Your task to perform on an android device: add a label to a message in the gmail app Image 0: 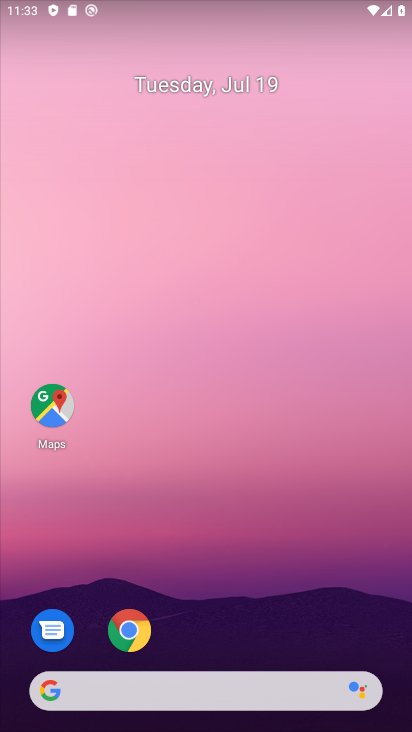
Step 0: drag from (192, 723) to (238, 108)
Your task to perform on an android device: add a label to a message in the gmail app Image 1: 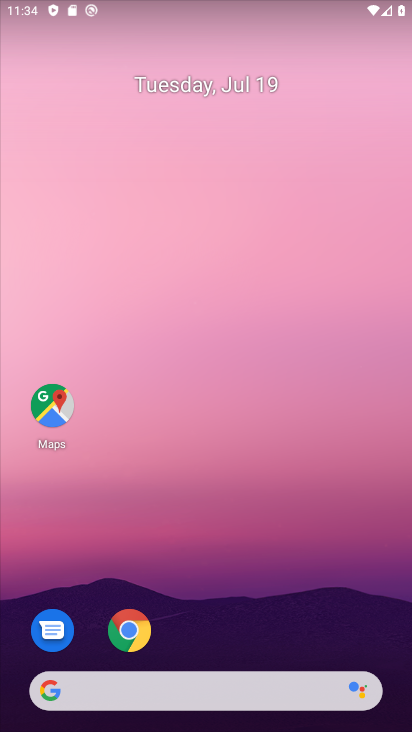
Step 1: drag from (220, 658) to (218, 42)
Your task to perform on an android device: add a label to a message in the gmail app Image 2: 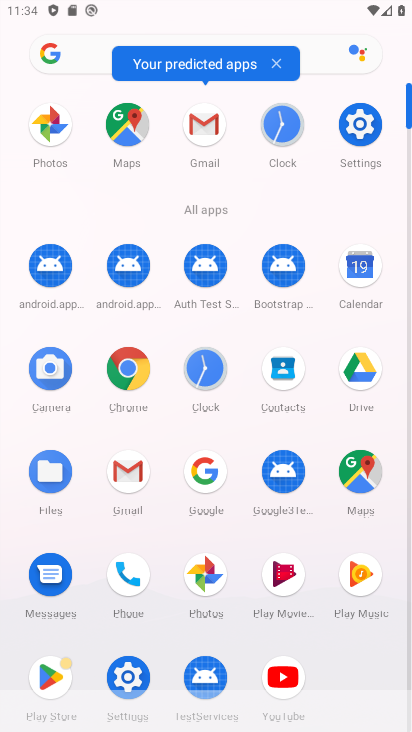
Step 2: click (126, 497)
Your task to perform on an android device: add a label to a message in the gmail app Image 3: 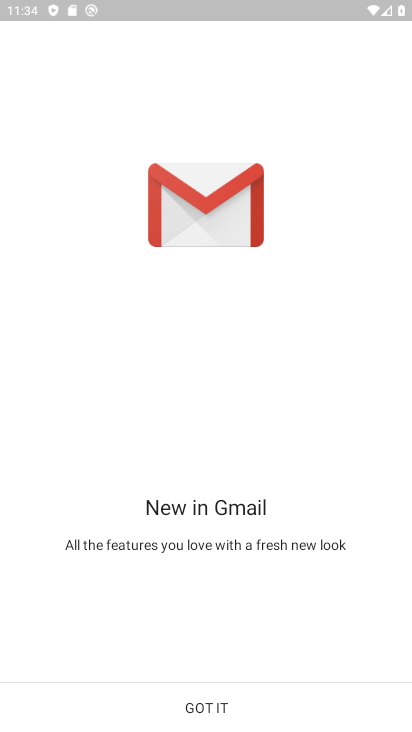
Step 3: click (202, 709)
Your task to perform on an android device: add a label to a message in the gmail app Image 4: 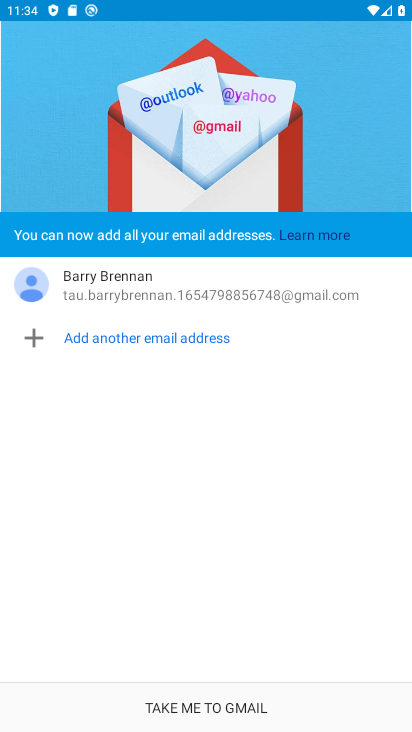
Step 4: click (189, 707)
Your task to perform on an android device: add a label to a message in the gmail app Image 5: 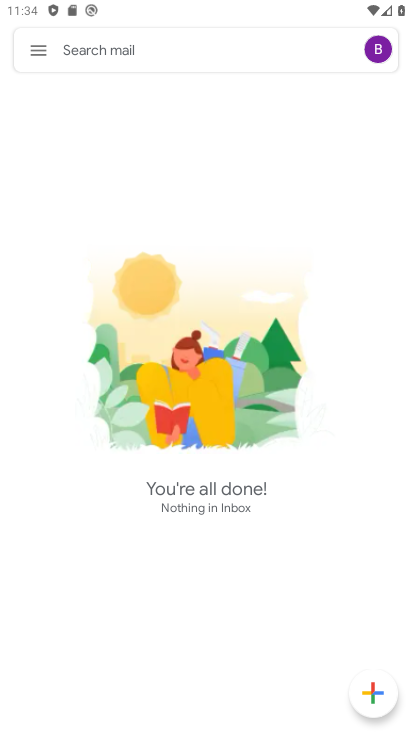
Step 5: click (39, 48)
Your task to perform on an android device: add a label to a message in the gmail app Image 6: 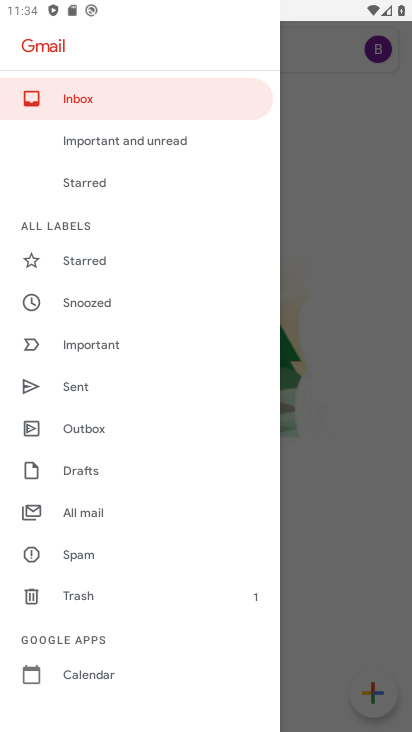
Step 6: click (98, 511)
Your task to perform on an android device: add a label to a message in the gmail app Image 7: 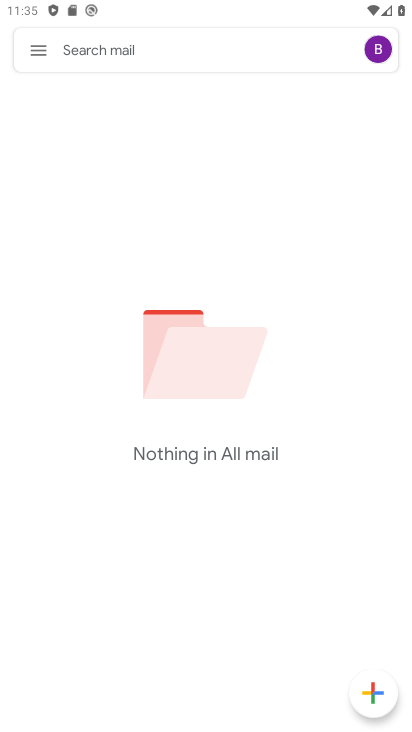
Step 7: task complete